Your task to perform on an android device: Show me popular videos on Youtube Image 0: 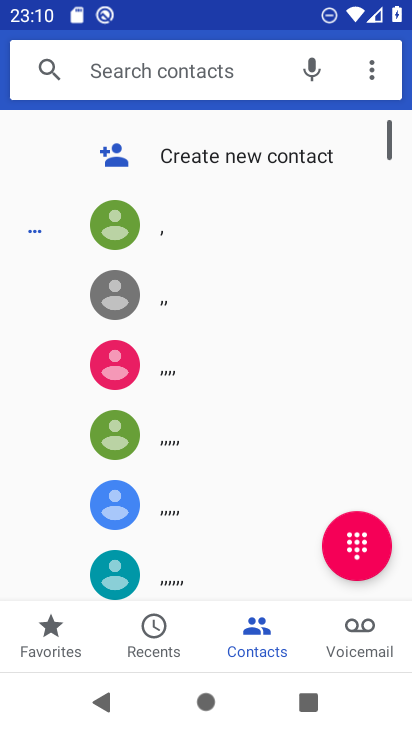
Step 0: press home button
Your task to perform on an android device: Show me popular videos on Youtube Image 1: 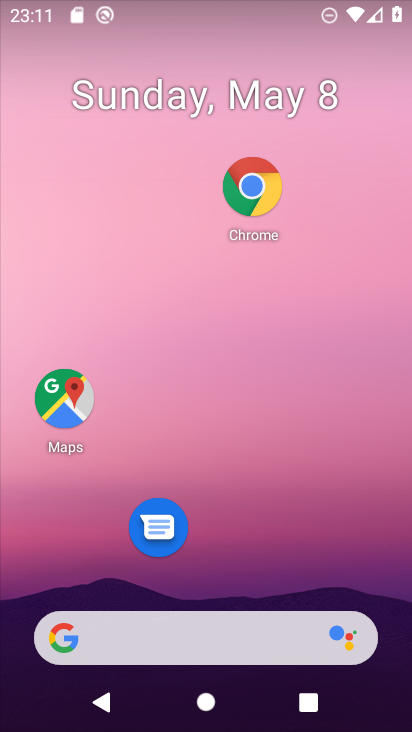
Step 1: click (326, 311)
Your task to perform on an android device: Show me popular videos on Youtube Image 2: 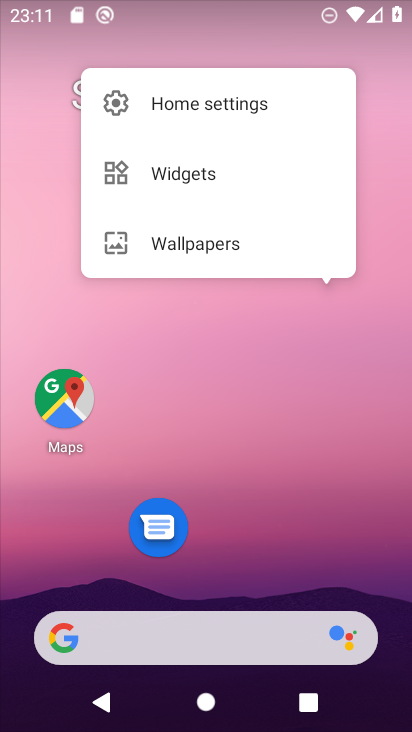
Step 2: drag from (257, 580) to (259, 543)
Your task to perform on an android device: Show me popular videos on Youtube Image 3: 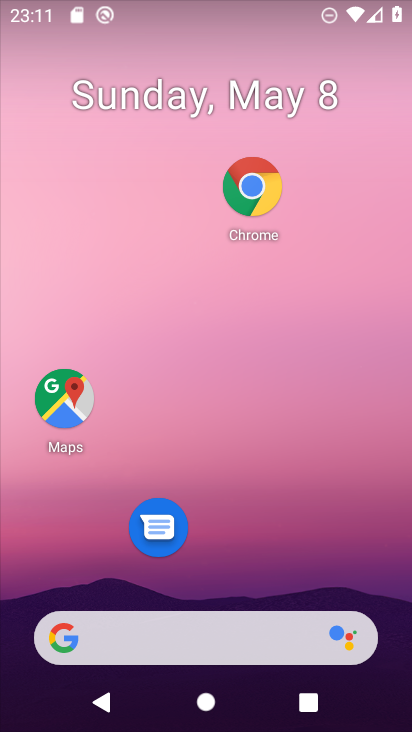
Step 3: drag from (271, 509) to (294, 257)
Your task to perform on an android device: Show me popular videos on Youtube Image 4: 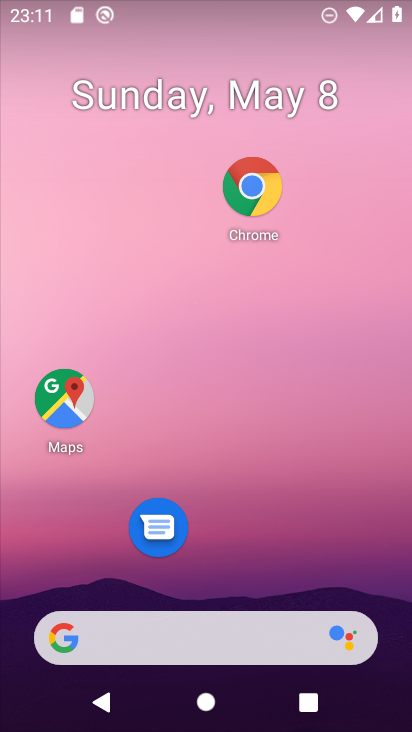
Step 4: drag from (278, 361) to (292, 268)
Your task to perform on an android device: Show me popular videos on Youtube Image 5: 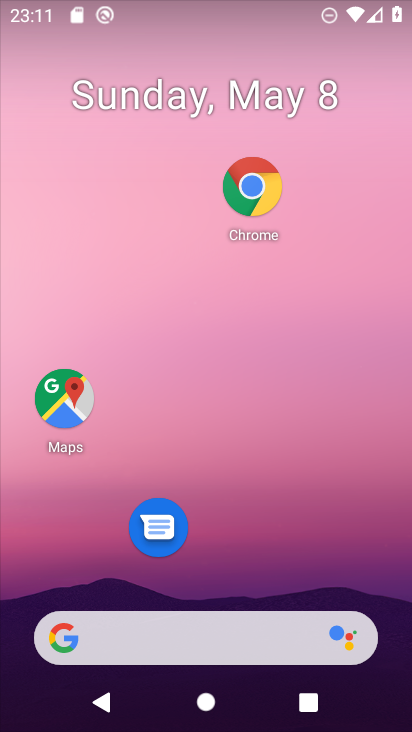
Step 5: drag from (211, 583) to (257, 268)
Your task to perform on an android device: Show me popular videos on Youtube Image 6: 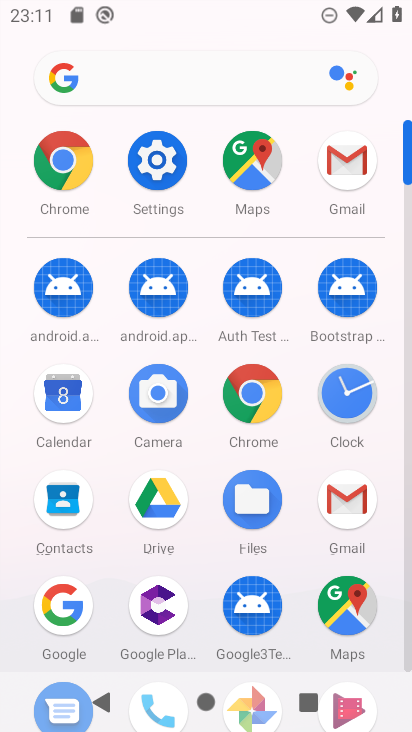
Step 6: drag from (273, 643) to (344, 202)
Your task to perform on an android device: Show me popular videos on Youtube Image 7: 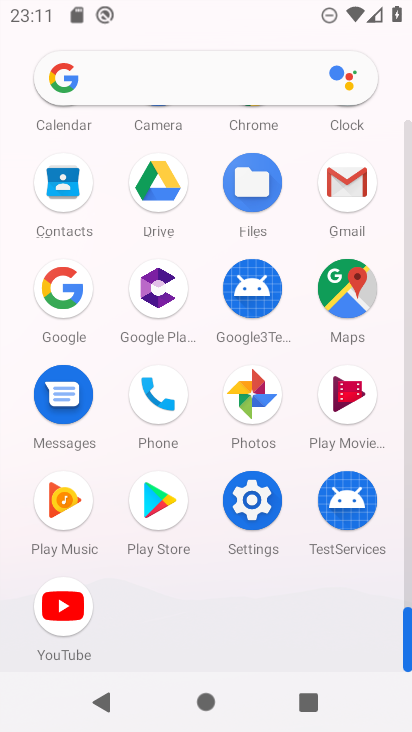
Step 7: click (61, 625)
Your task to perform on an android device: Show me popular videos on Youtube Image 8: 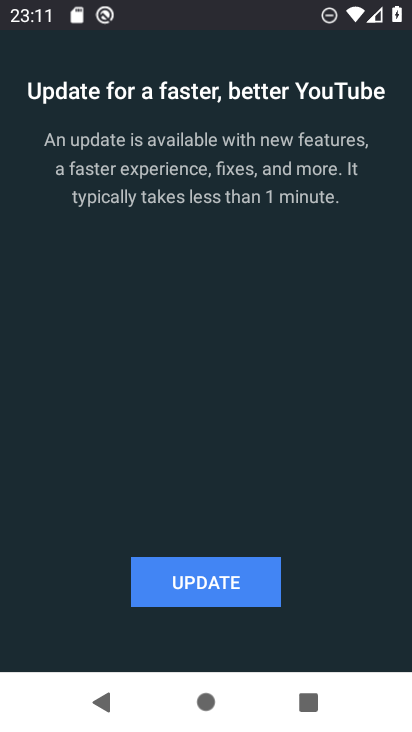
Step 8: task complete